Your task to perform on an android device: turn on showing notifications on the lock screen Image 0: 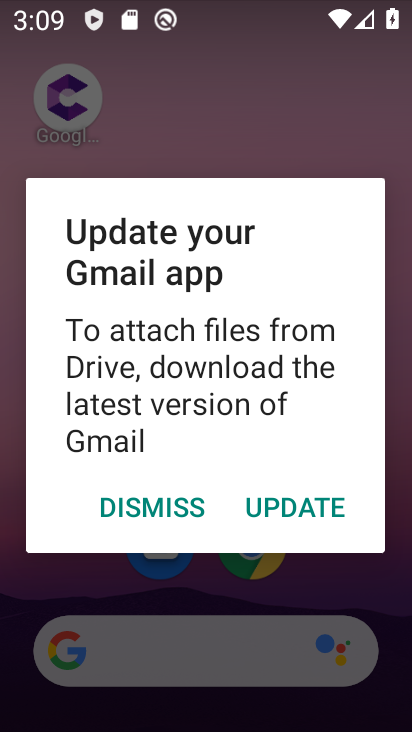
Step 0: press home button
Your task to perform on an android device: turn on showing notifications on the lock screen Image 1: 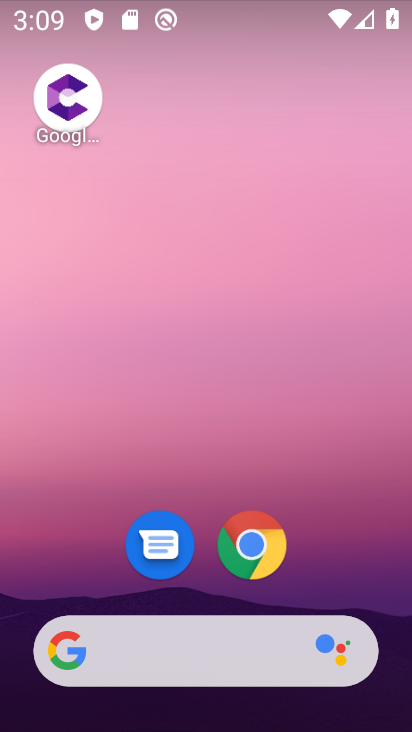
Step 1: drag from (391, 623) to (292, 197)
Your task to perform on an android device: turn on showing notifications on the lock screen Image 2: 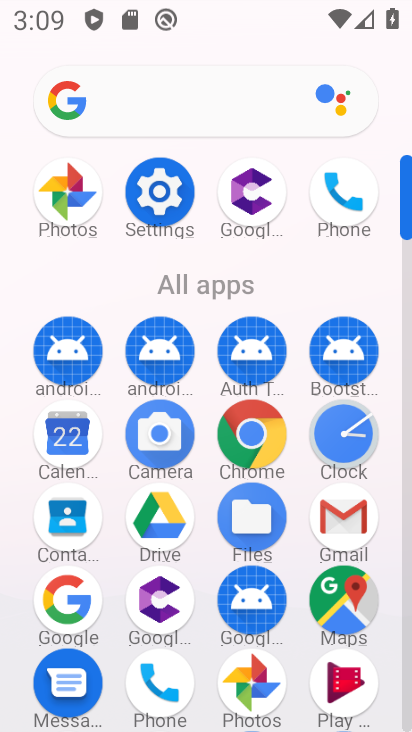
Step 2: click (406, 714)
Your task to perform on an android device: turn on showing notifications on the lock screen Image 3: 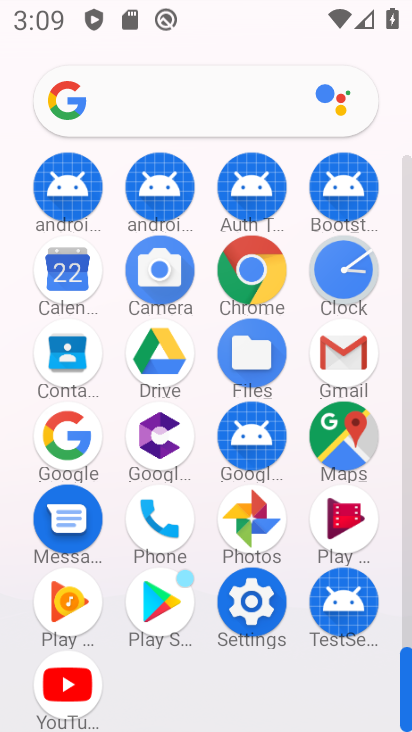
Step 3: click (249, 601)
Your task to perform on an android device: turn on showing notifications on the lock screen Image 4: 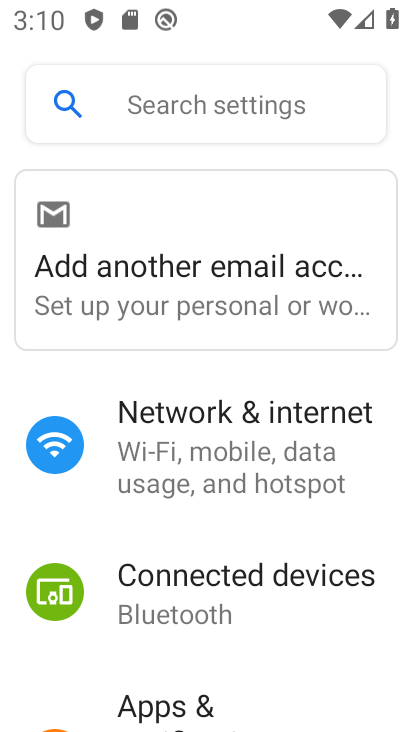
Step 4: drag from (369, 612) to (371, 255)
Your task to perform on an android device: turn on showing notifications on the lock screen Image 5: 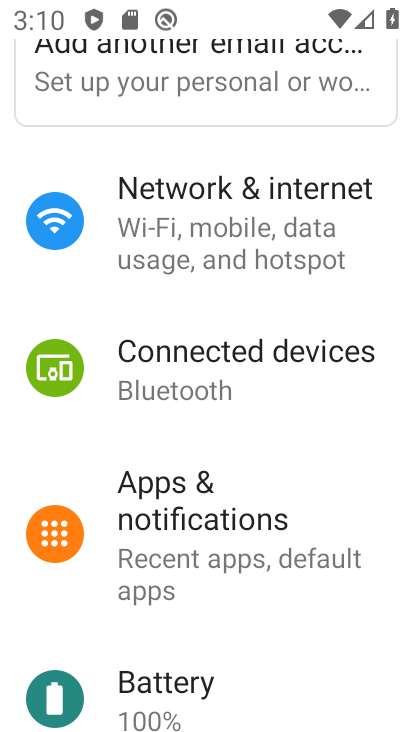
Step 5: click (150, 542)
Your task to perform on an android device: turn on showing notifications on the lock screen Image 6: 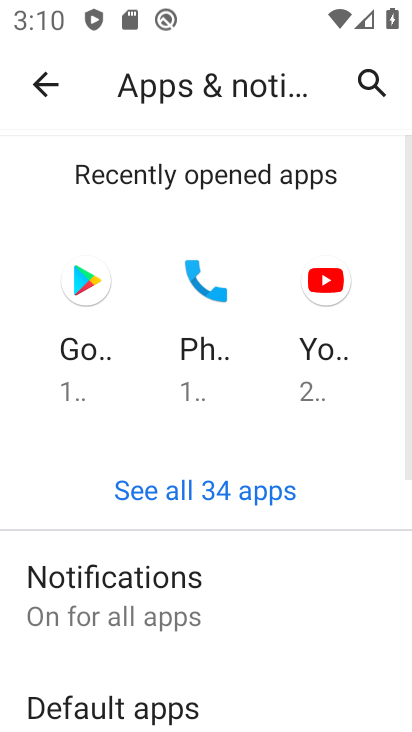
Step 6: drag from (342, 636) to (369, 267)
Your task to perform on an android device: turn on showing notifications on the lock screen Image 7: 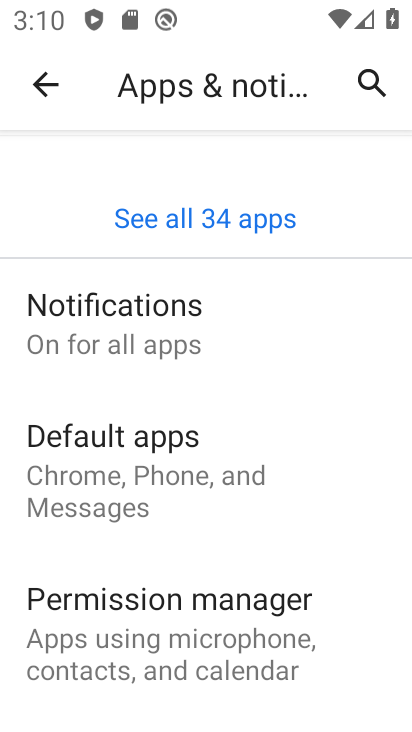
Step 7: click (89, 313)
Your task to perform on an android device: turn on showing notifications on the lock screen Image 8: 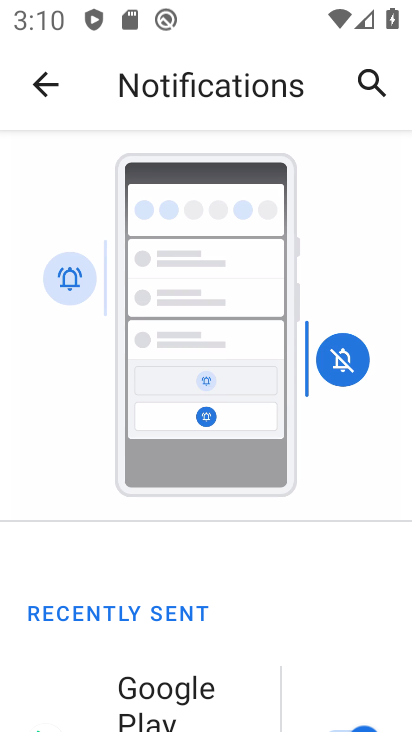
Step 8: drag from (279, 694) to (256, 195)
Your task to perform on an android device: turn on showing notifications on the lock screen Image 9: 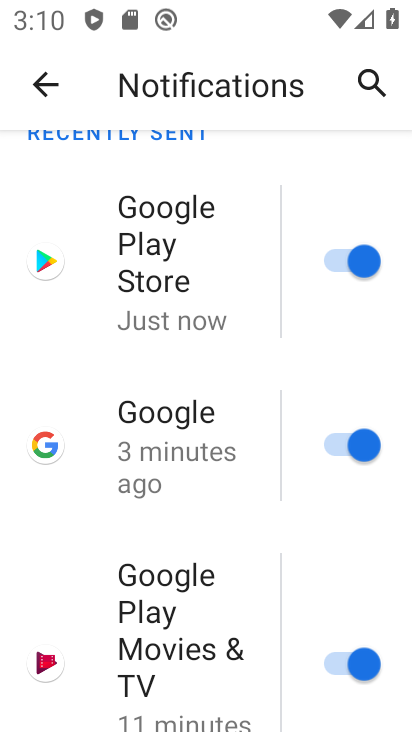
Step 9: drag from (276, 644) to (266, 189)
Your task to perform on an android device: turn on showing notifications on the lock screen Image 10: 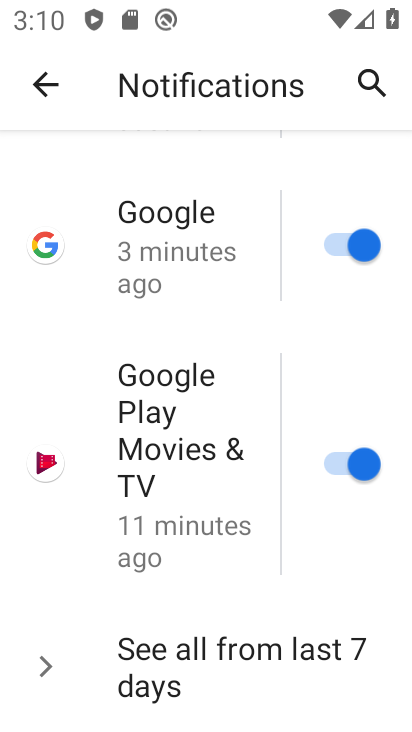
Step 10: drag from (272, 617) to (273, 164)
Your task to perform on an android device: turn on showing notifications on the lock screen Image 11: 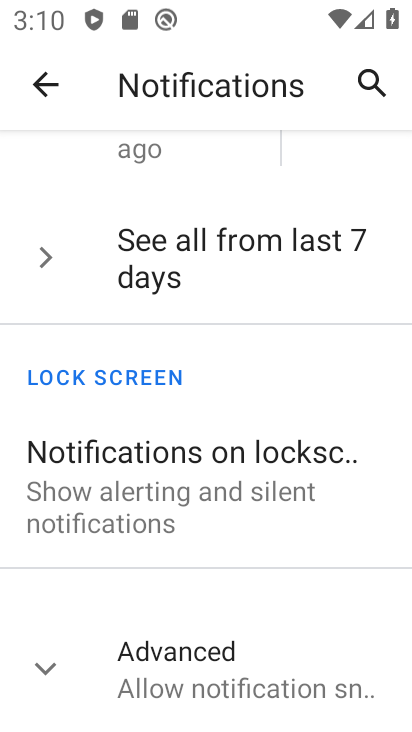
Step 11: click (129, 486)
Your task to perform on an android device: turn on showing notifications on the lock screen Image 12: 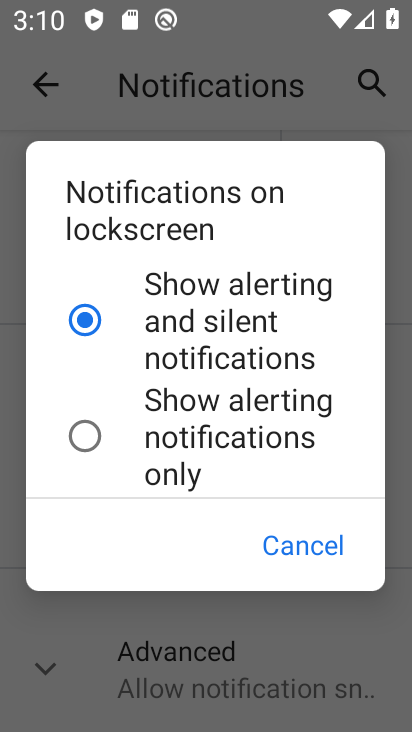
Step 12: task complete